Your task to perform on an android device: Open my contact list Image 0: 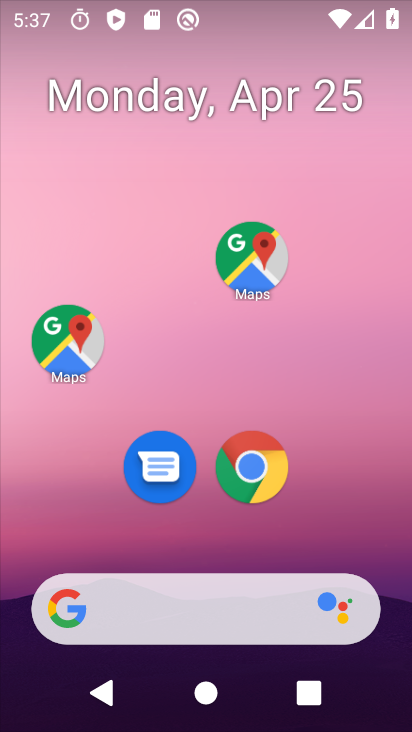
Step 0: drag from (295, 580) to (304, 2)
Your task to perform on an android device: Open my contact list Image 1: 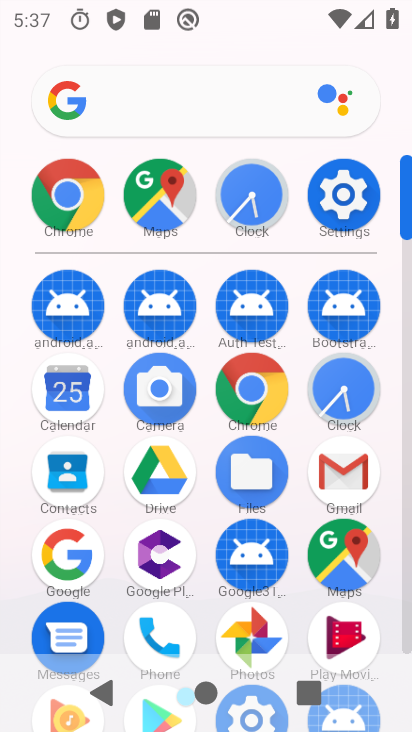
Step 1: click (87, 489)
Your task to perform on an android device: Open my contact list Image 2: 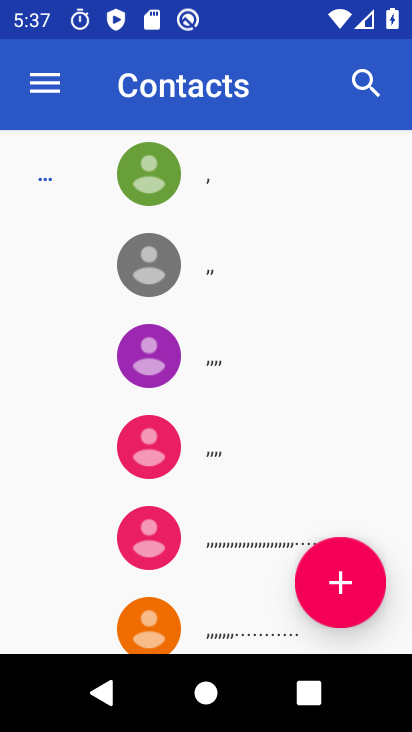
Step 2: task complete